Your task to perform on an android device: Go to CNN.com Image 0: 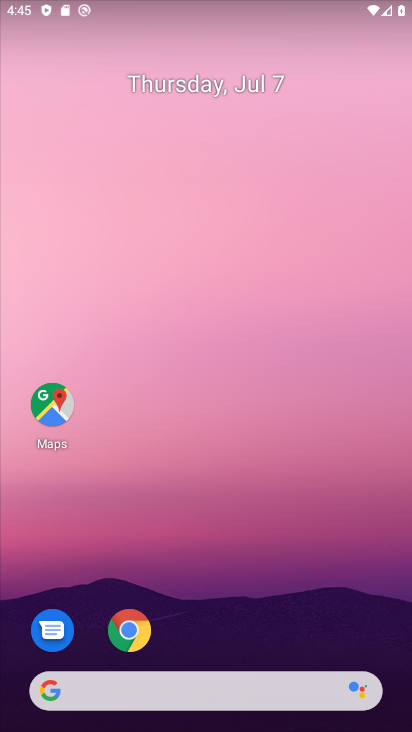
Step 0: drag from (280, 715) to (195, 105)
Your task to perform on an android device: Go to CNN.com Image 1: 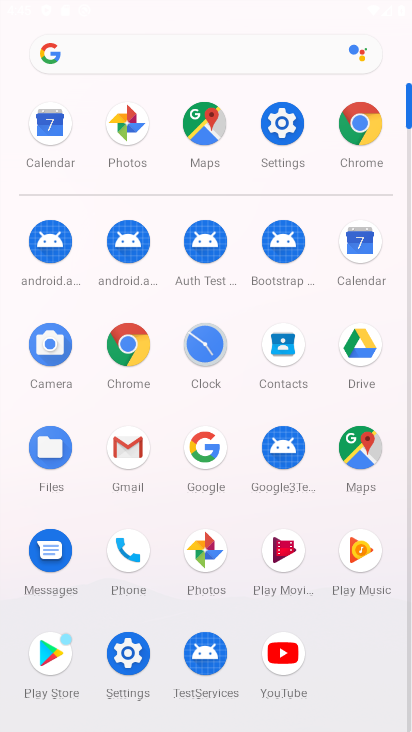
Step 1: click (130, 344)
Your task to perform on an android device: Go to CNN.com Image 2: 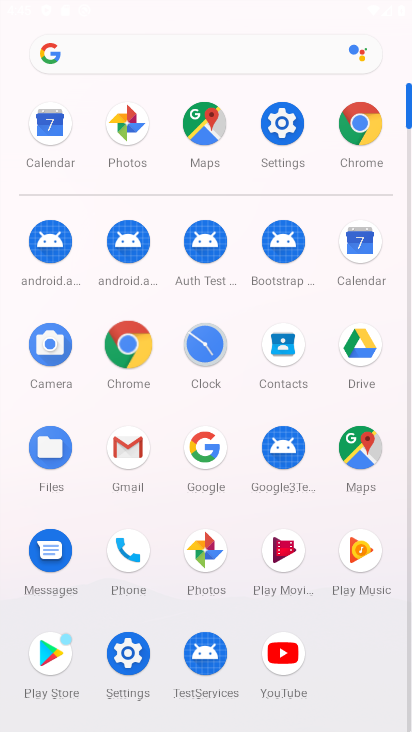
Step 2: click (128, 347)
Your task to perform on an android device: Go to CNN.com Image 3: 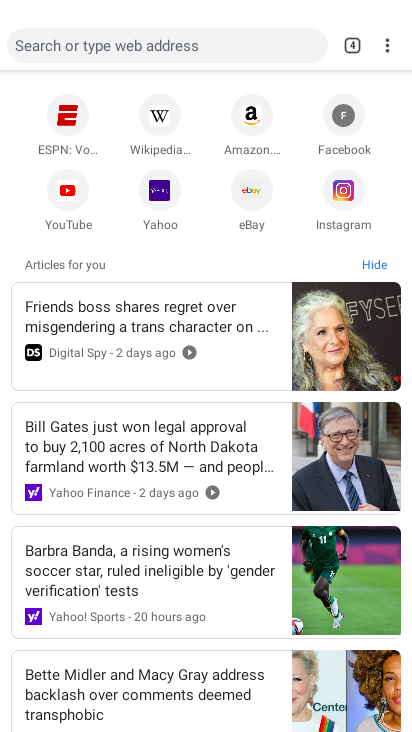
Step 3: click (75, 38)
Your task to perform on an android device: Go to CNN.com Image 4: 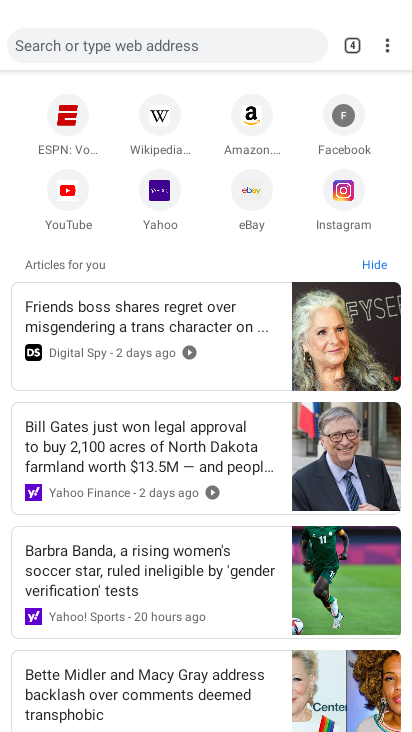
Step 4: click (69, 47)
Your task to perform on an android device: Go to CNN.com Image 5: 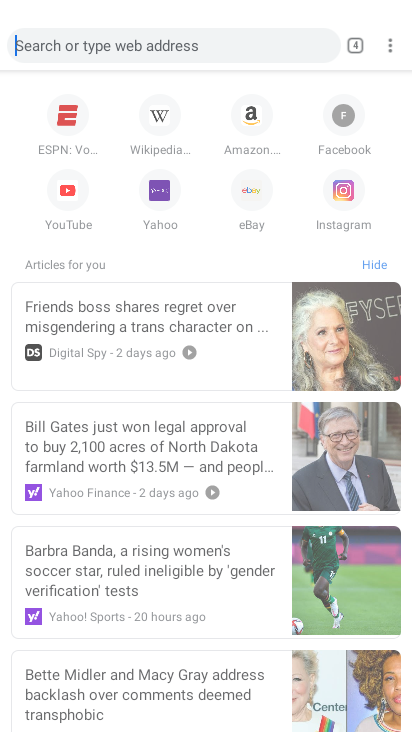
Step 5: click (69, 47)
Your task to perform on an android device: Go to CNN.com Image 6: 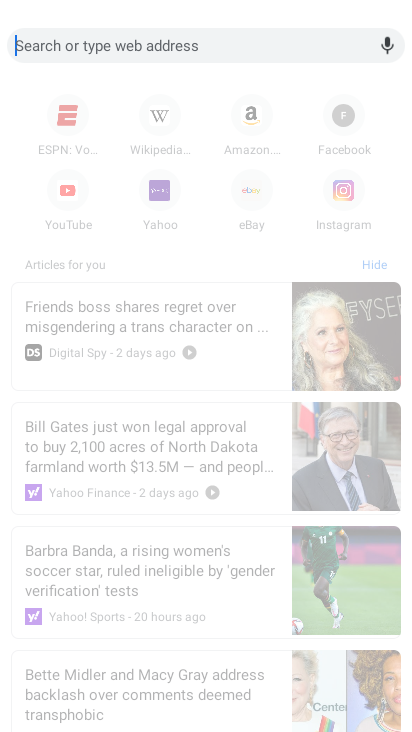
Step 6: click (70, 48)
Your task to perform on an android device: Go to CNN.com Image 7: 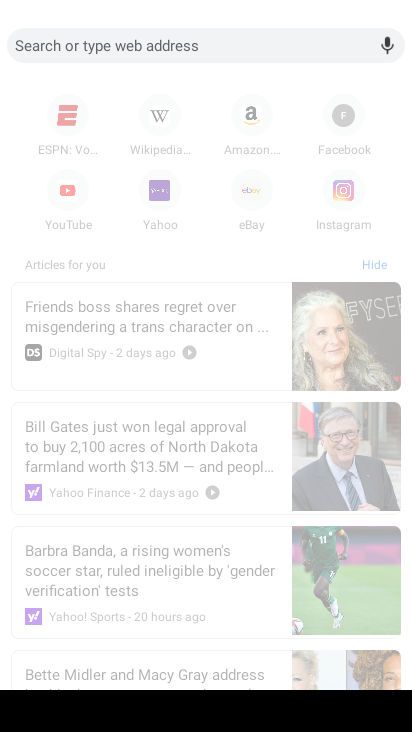
Step 7: click (70, 48)
Your task to perform on an android device: Go to CNN.com Image 8: 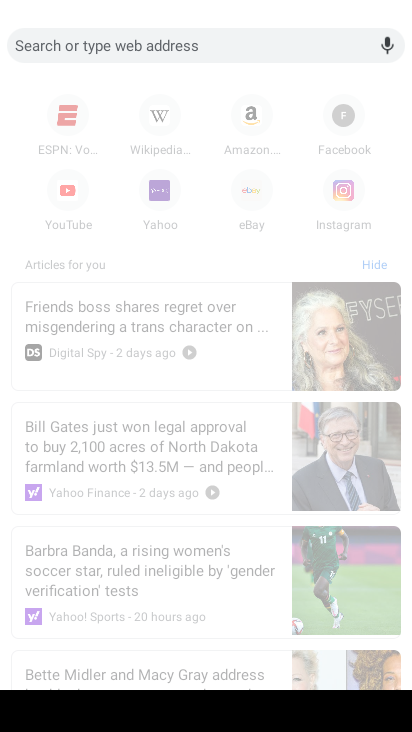
Step 8: click (70, 44)
Your task to perform on an android device: Go to CNN.com Image 9: 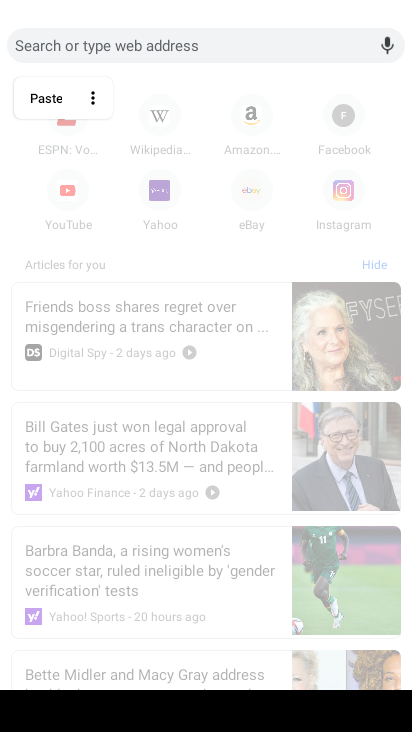
Step 9: type "CNN>com"
Your task to perform on an android device: Go to CNN.com Image 10: 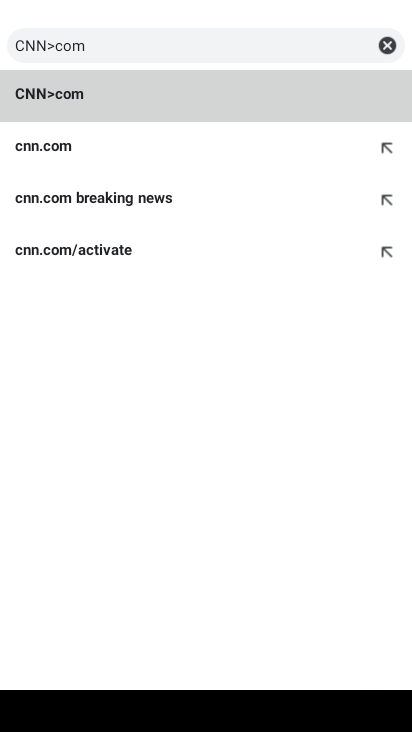
Step 10: click (43, 140)
Your task to perform on an android device: Go to CNN.com Image 11: 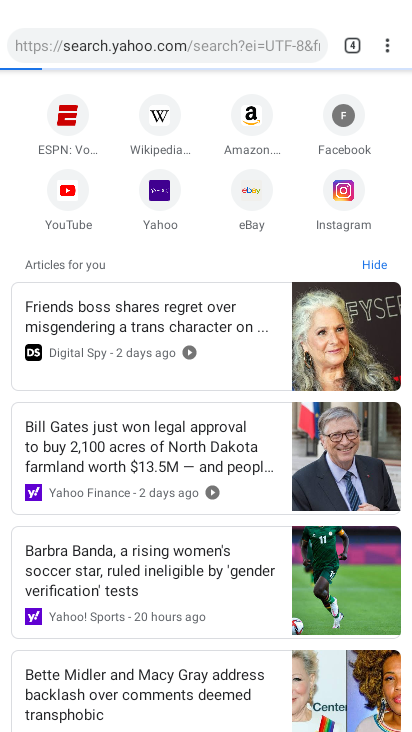
Step 11: click (44, 141)
Your task to perform on an android device: Go to CNN.com Image 12: 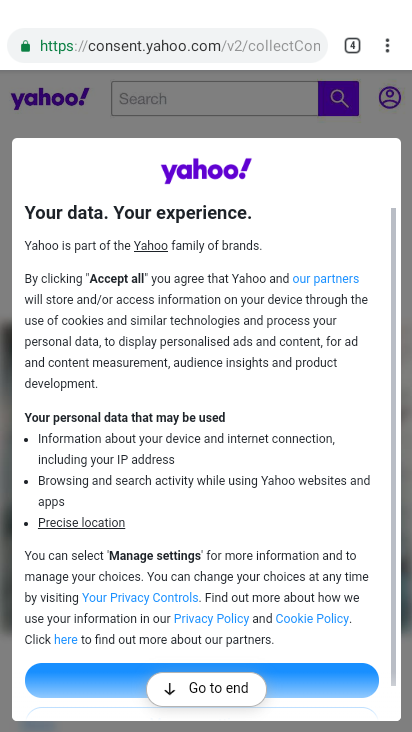
Step 12: task complete